Your task to perform on an android device: turn off smart reply in the gmail app Image 0: 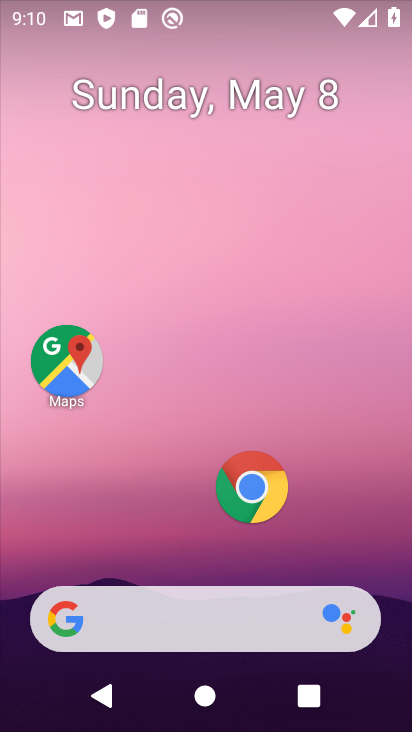
Step 0: drag from (175, 520) to (256, 11)
Your task to perform on an android device: turn off smart reply in the gmail app Image 1: 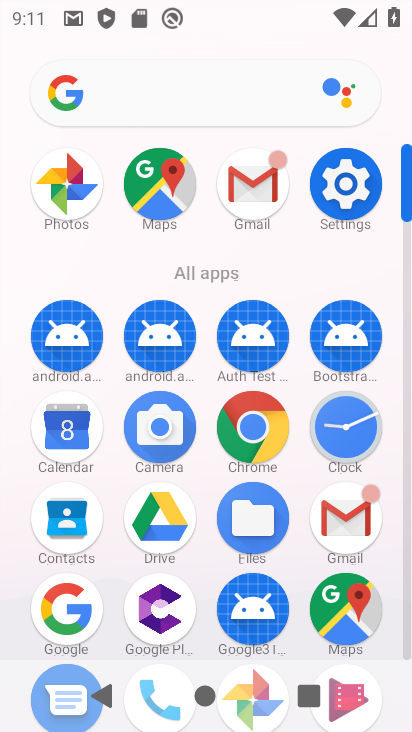
Step 1: click (257, 169)
Your task to perform on an android device: turn off smart reply in the gmail app Image 2: 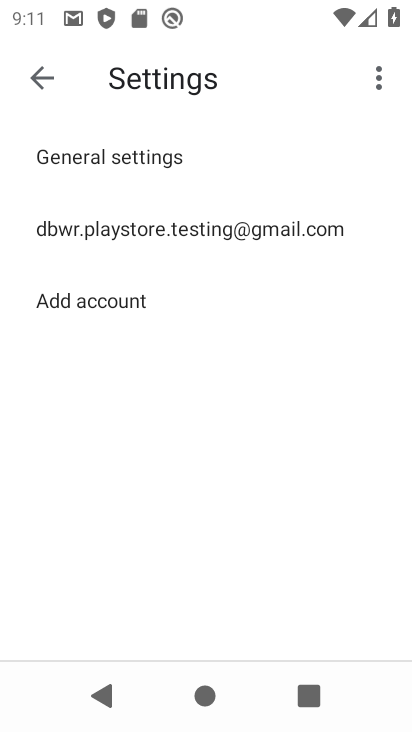
Step 2: click (211, 224)
Your task to perform on an android device: turn off smart reply in the gmail app Image 3: 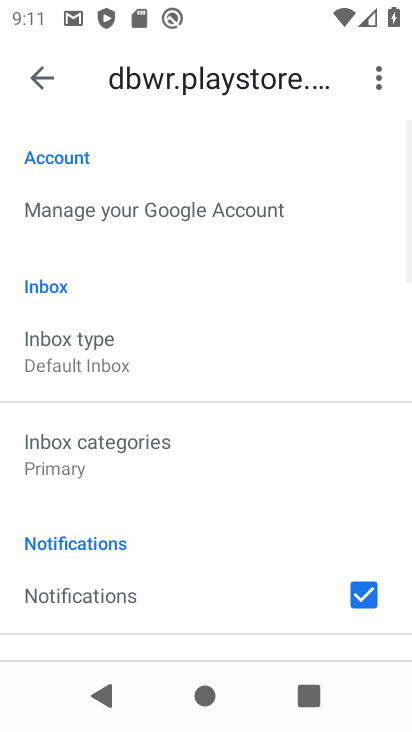
Step 3: drag from (210, 530) to (273, 153)
Your task to perform on an android device: turn off smart reply in the gmail app Image 4: 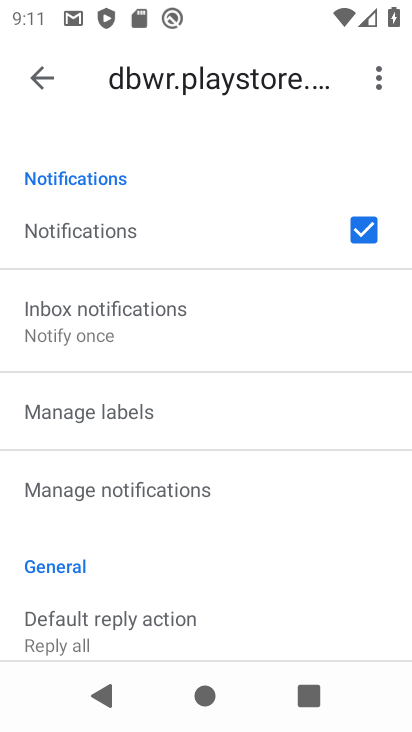
Step 4: drag from (181, 532) to (213, 143)
Your task to perform on an android device: turn off smart reply in the gmail app Image 5: 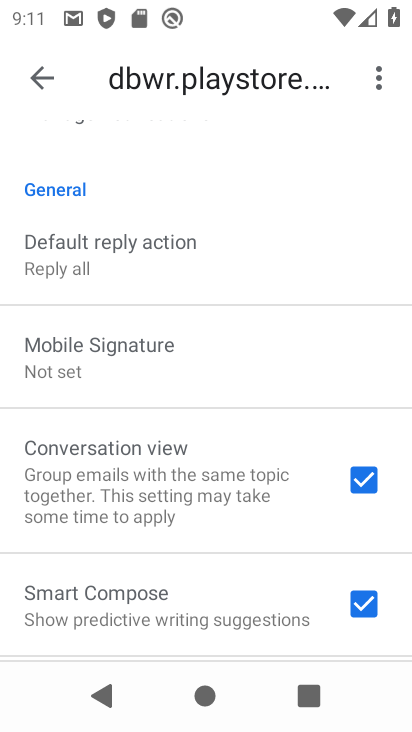
Step 5: drag from (179, 573) to (234, 73)
Your task to perform on an android device: turn off smart reply in the gmail app Image 6: 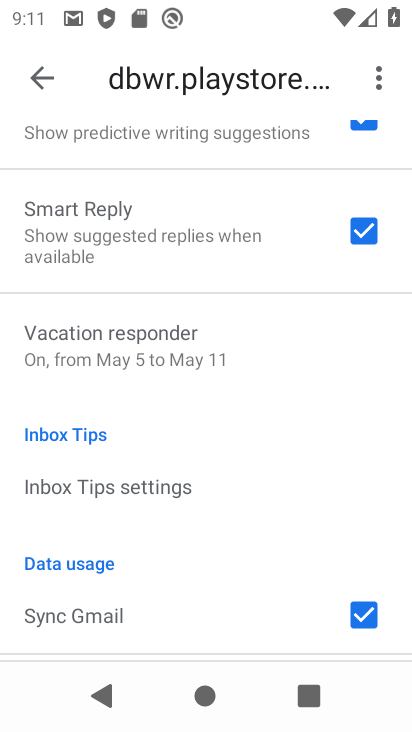
Step 6: click (359, 226)
Your task to perform on an android device: turn off smart reply in the gmail app Image 7: 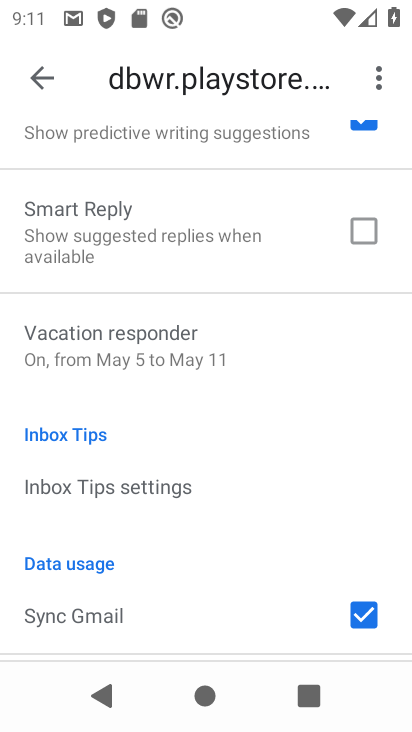
Step 7: task complete